Your task to perform on an android device: Open eBay Image 0: 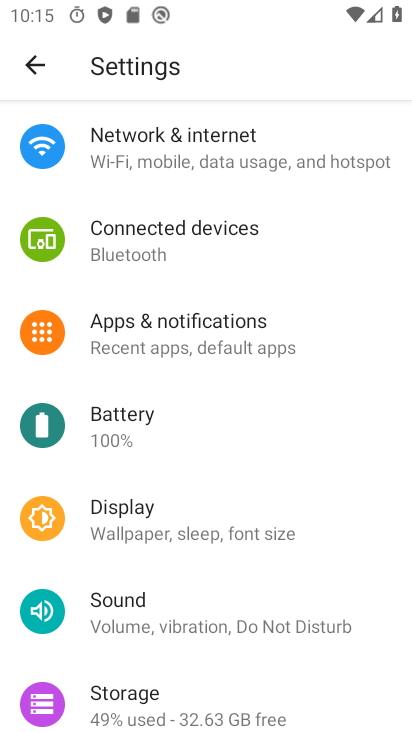
Step 0: press home button
Your task to perform on an android device: Open eBay Image 1: 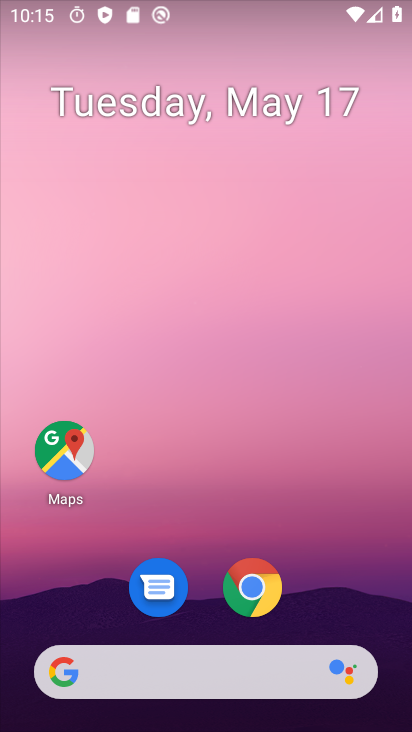
Step 1: drag from (351, 582) to (314, 83)
Your task to perform on an android device: Open eBay Image 2: 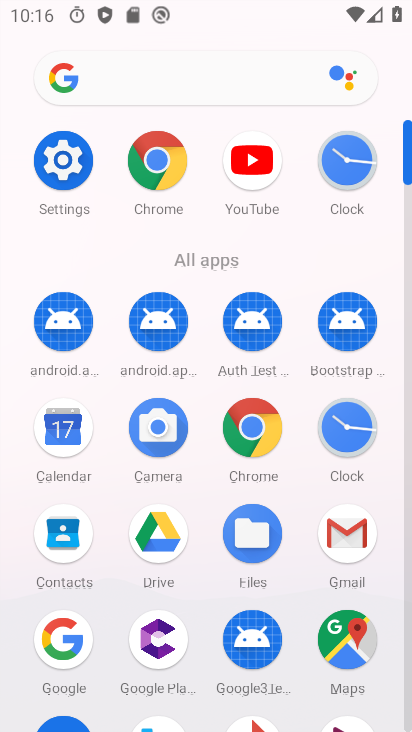
Step 2: click (178, 173)
Your task to perform on an android device: Open eBay Image 3: 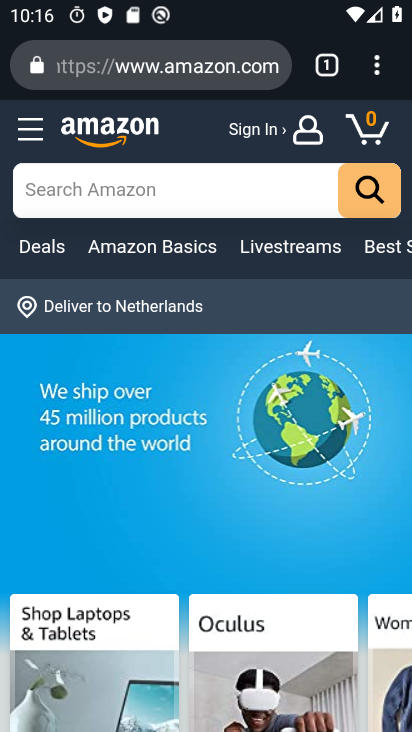
Step 3: click (148, 63)
Your task to perform on an android device: Open eBay Image 4: 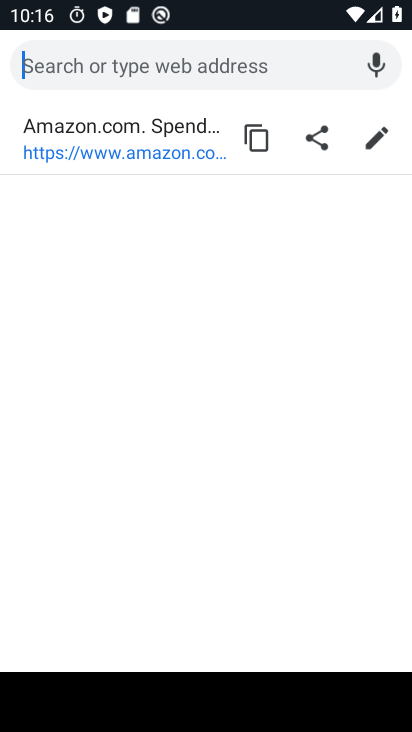
Step 4: type "ebay"
Your task to perform on an android device: Open eBay Image 5: 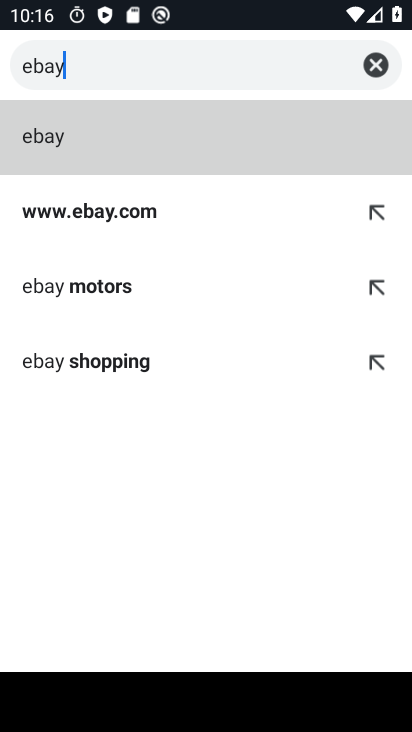
Step 5: click (46, 138)
Your task to perform on an android device: Open eBay Image 6: 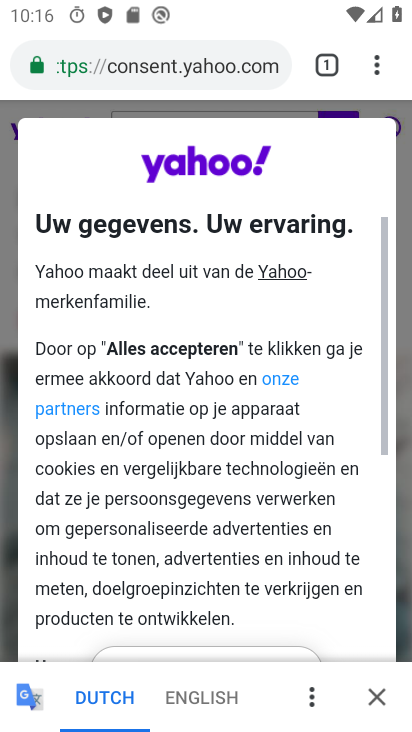
Step 6: click (373, 706)
Your task to perform on an android device: Open eBay Image 7: 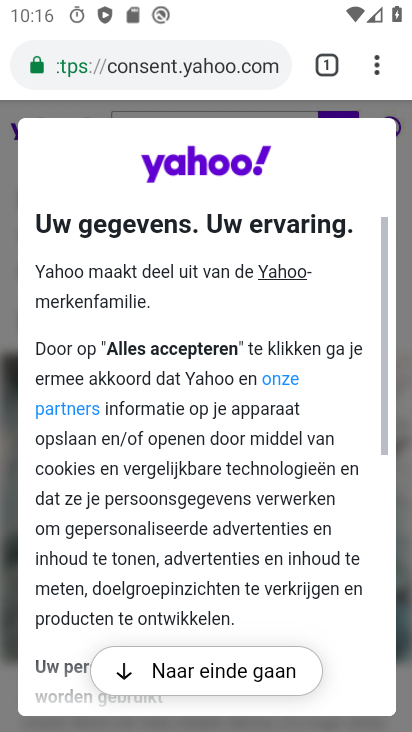
Step 7: task complete